Your task to perform on an android device: set default search engine in the chrome app Image 0: 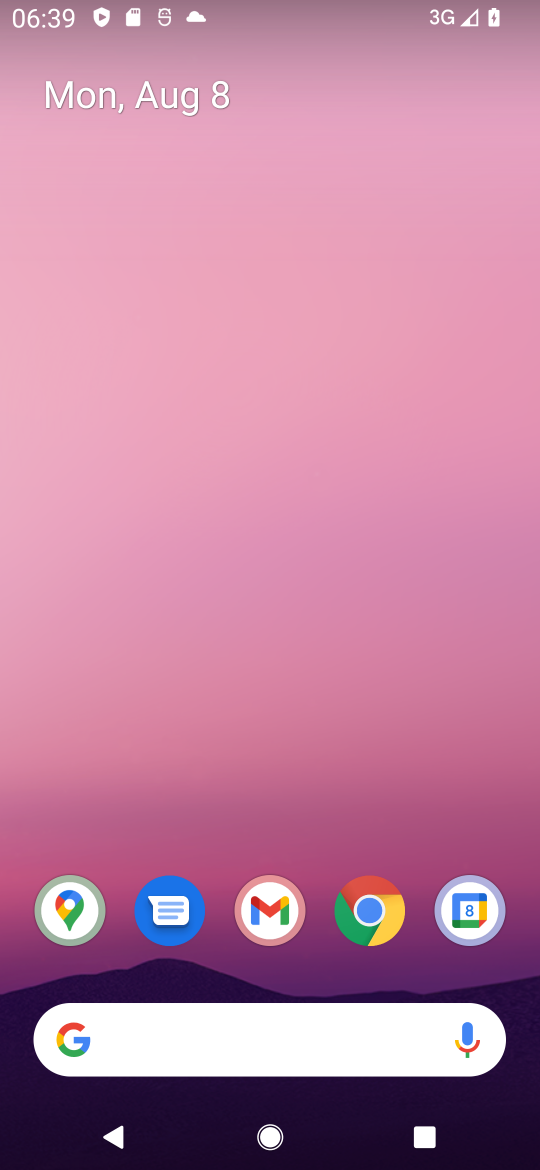
Step 0: click (368, 912)
Your task to perform on an android device: set default search engine in the chrome app Image 1: 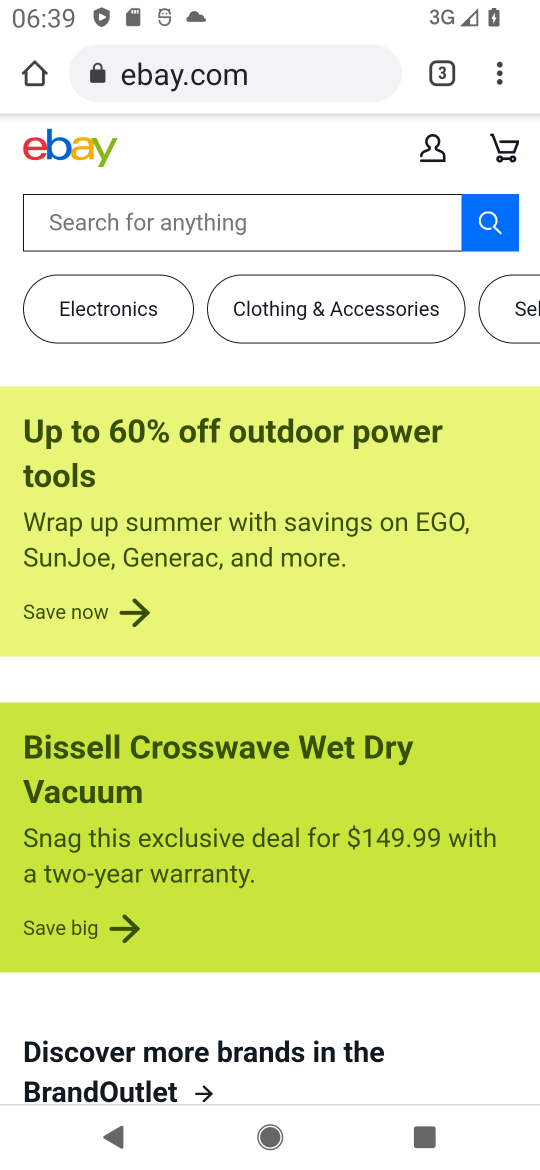
Step 1: click (497, 76)
Your task to perform on an android device: set default search engine in the chrome app Image 2: 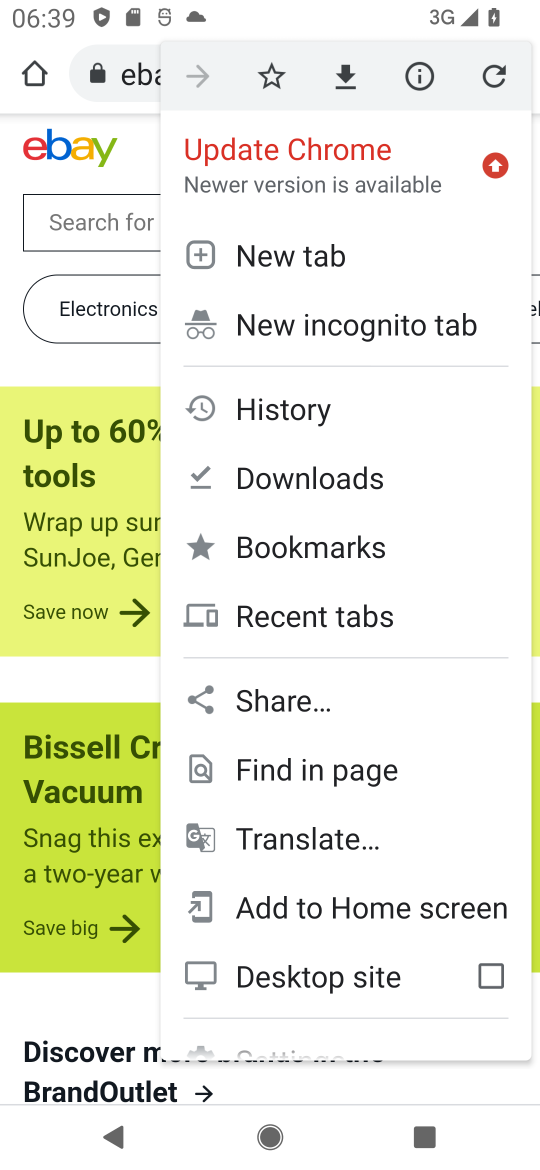
Step 2: drag from (272, 781) to (317, 638)
Your task to perform on an android device: set default search engine in the chrome app Image 3: 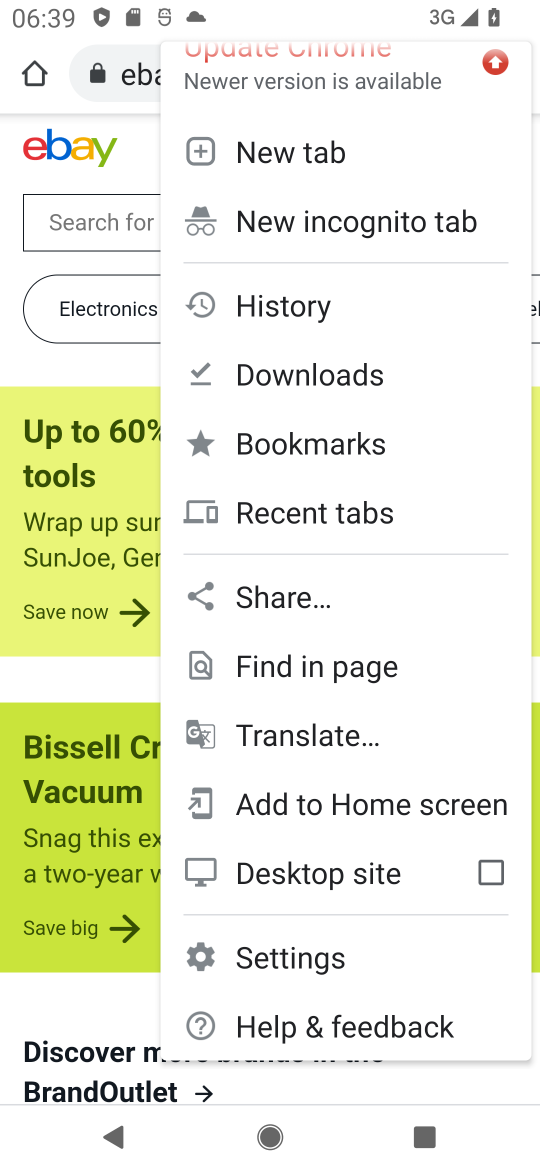
Step 3: click (281, 955)
Your task to perform on an android device: set default search engine in the chrome app Image 4: 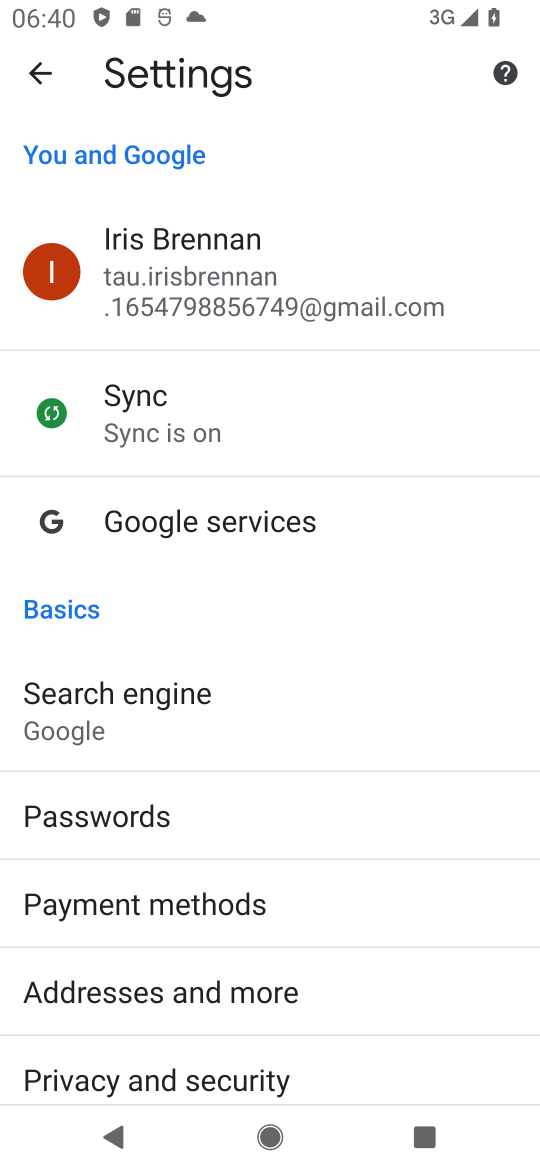
Step 4: drag from (196, 872) to (257, 749)
Your task to perform on an android device: set default search engine in the chrome app Image 5: 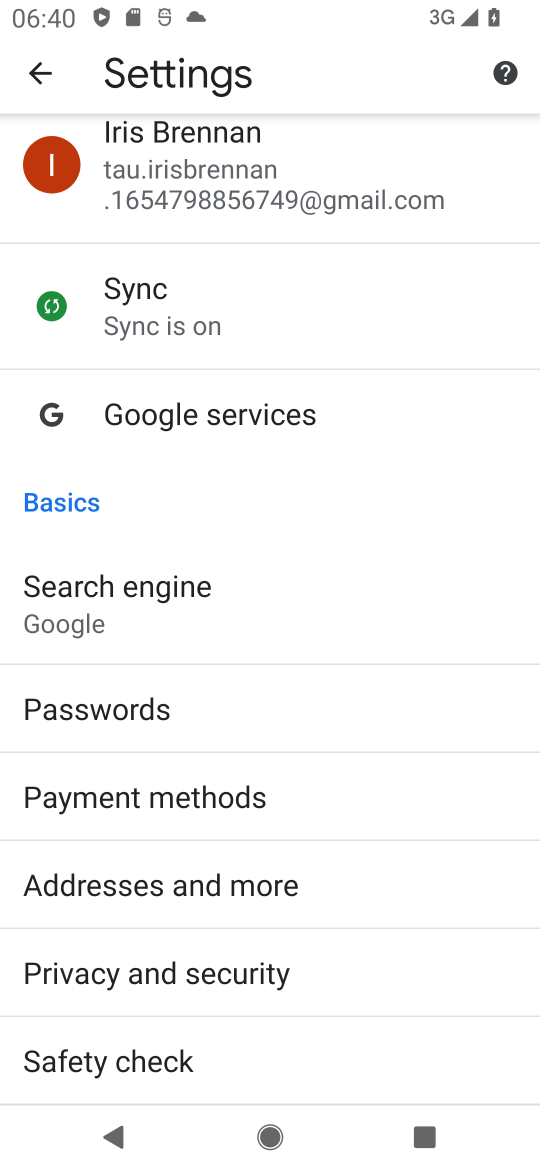
Step 5: click (170, 609)
Your task to perform on an android device: set default search engine in the chrome app Image 6: 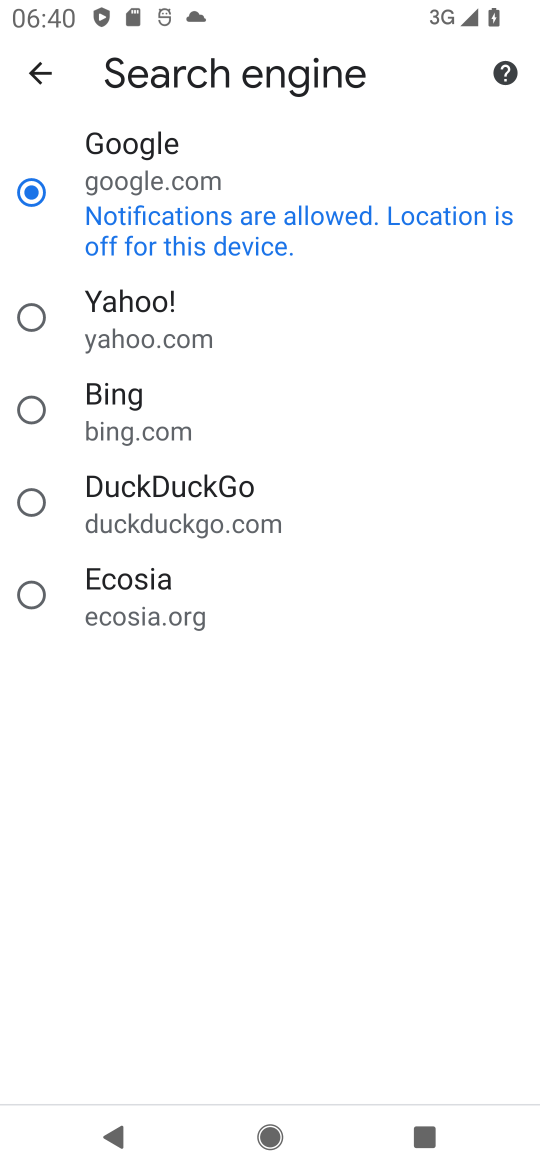
Step 6: click (20, 186)
Your task to perform on an android device: set default search engine in the chrome app Image 7: 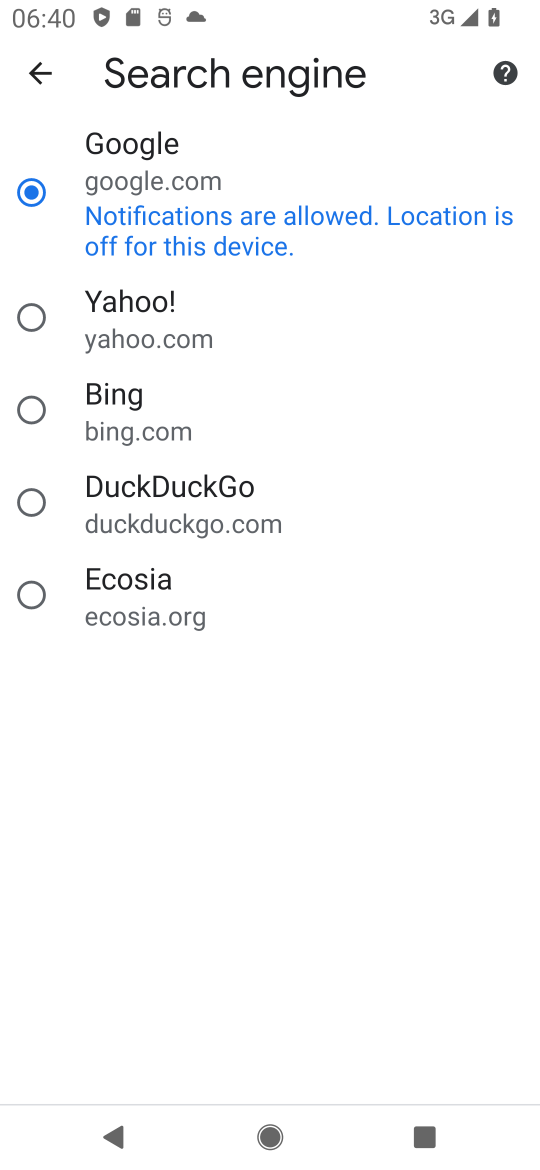
Step 7: task complete